Your task to perform on an android device: Search for seafood restaurants on Google Maps Image 0: 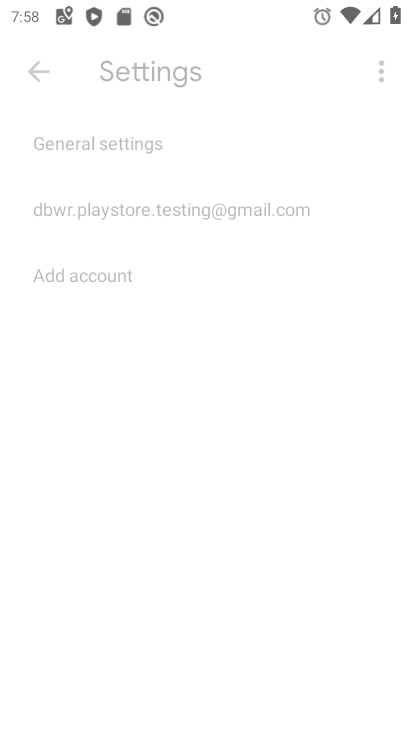
Step 0: click (282, 239)
Your task to perform on an android device: Search for seafood restaurants on Google Maps Image 1: 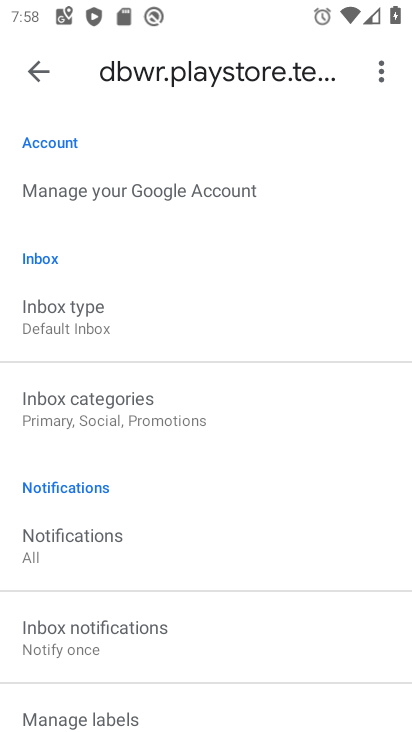
Step 1: press home button
Your task to perform on an android device: Search for seafood restaurants on Google Maps Image 2: 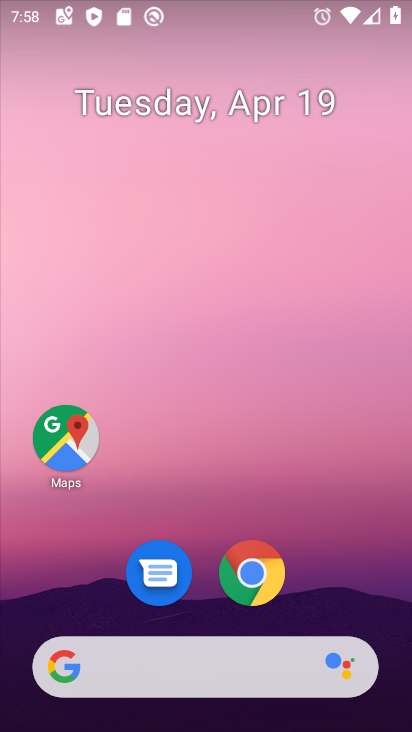
Step 2: click (82, 437)
Your task to perform on an android device: Search for seafood restaurants on Google Maps Image 3: 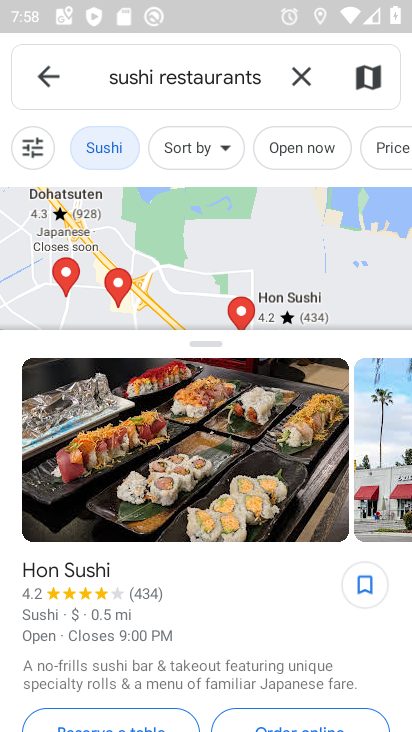
Step 3: click (302, 70)
Your task to perform on an android device: Search for seafood restaurants on Google Maps Image 4: 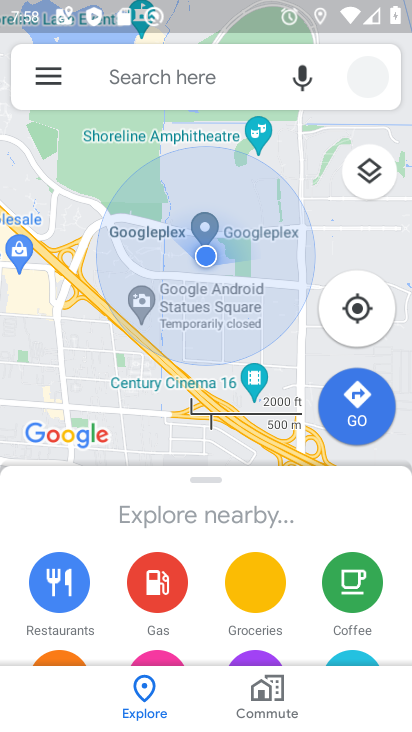
Step 4: click (196, 70)
Your task to perform on an android device: Search for seafood restaurants on Google Maps Image 5: 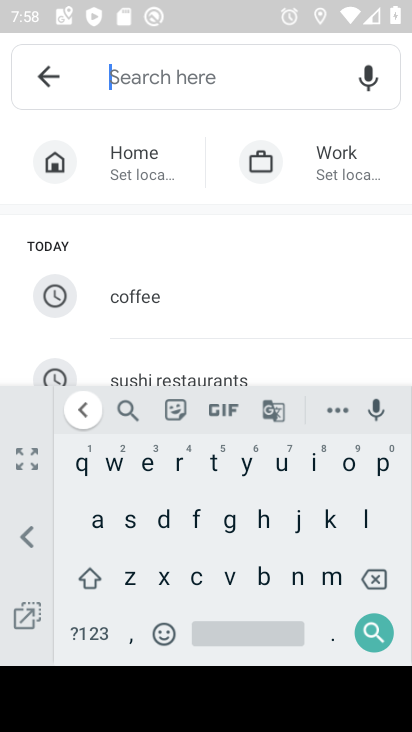
Step 5: click (29, 460)
Your task to perform on an android device: Search for seafood restaurants on Google Maps Image 6: 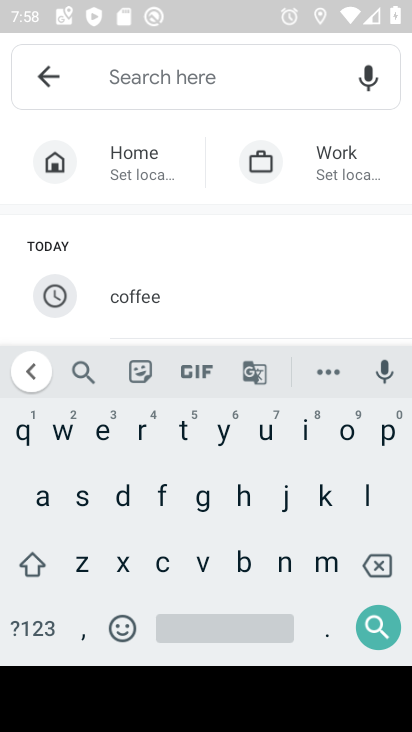
Step 6: click (87, 505)
Your task to perform on an android device: Search for seafood restaurants on Google Maps Image 7: 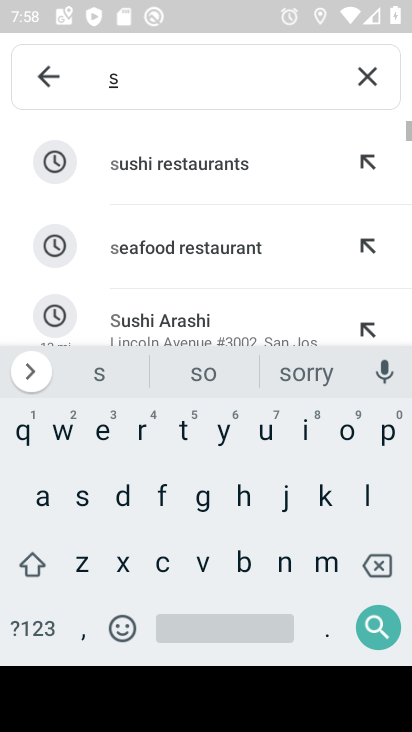
Step 7: click (104, 434)
Your task to perform on an android device: Search for seafood restaurants on Google Maps Image 8: 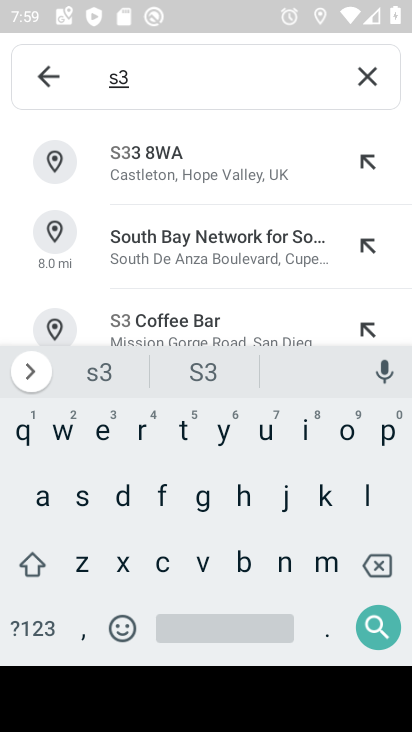
Step 8: click (382, 561)
Your task to perform on an android device: Search for seafood restaurants on Google Maps Image 9: 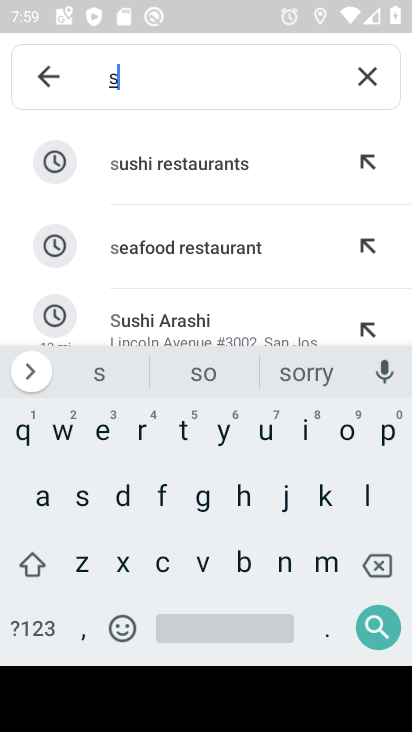
Step 9: click (194, 234)
Your task to perform on an android device: Search for seafood restaurants on Google Maps Image 10: 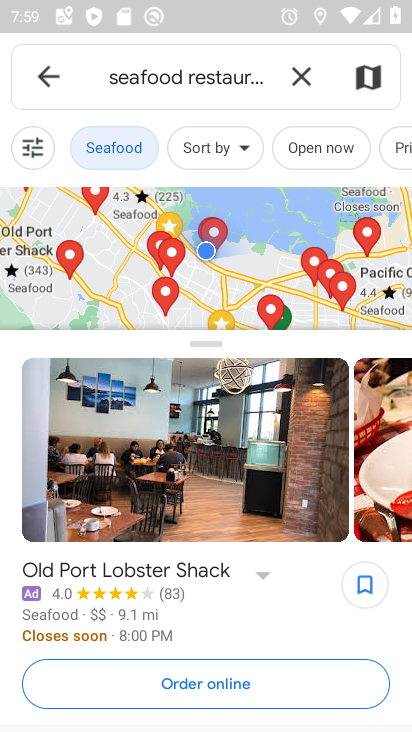
Step 10: task complete